Your task to perform on an android device: move an email to a new category in the gmail app Image 0: 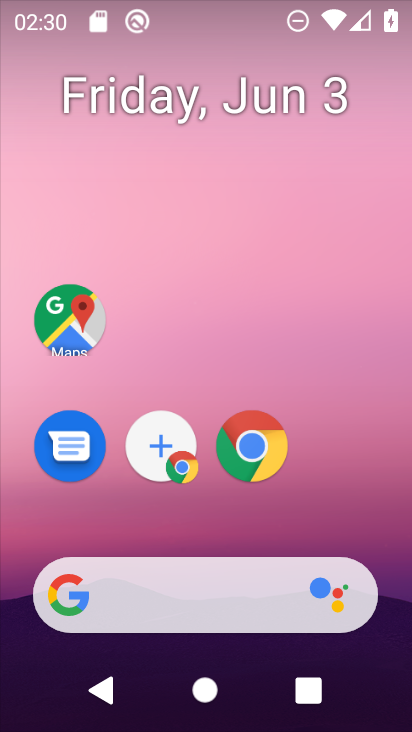
Step 0: drag from (223, 692) to (326, 42)
Your task to perform on an android device: move an email to a new category in the gmail app Image 1: 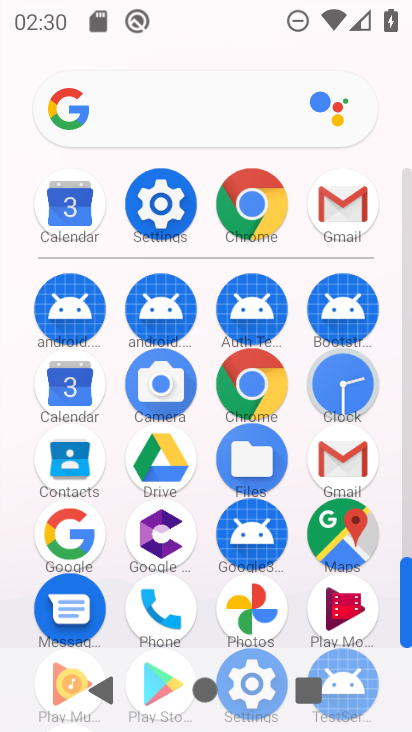
Step 1: click (341, 231)
Your task to perform on an android device: move an email to a new category in the gmail app Image 2: 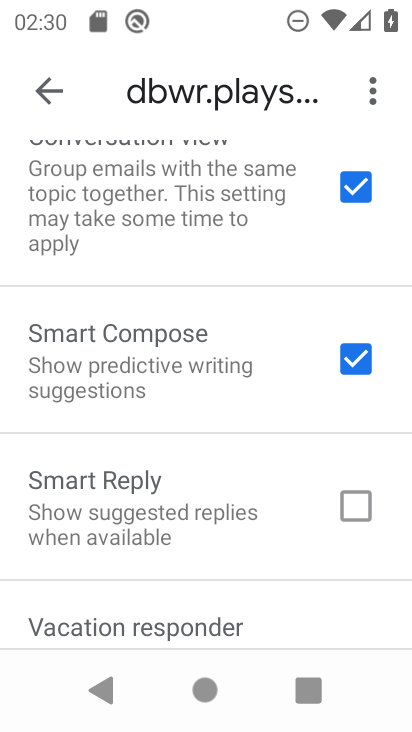
Step 2: click (46, 88)
Your task to perform on an android device: move an email to a new category in the gmail app Image 3: 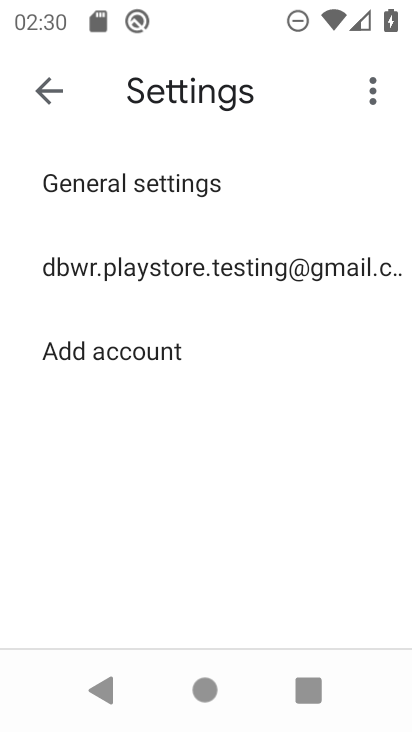
Step 3: click (64, 93)
Your task to perform on an android device: move an email to a new category in the gmail app Image 4: 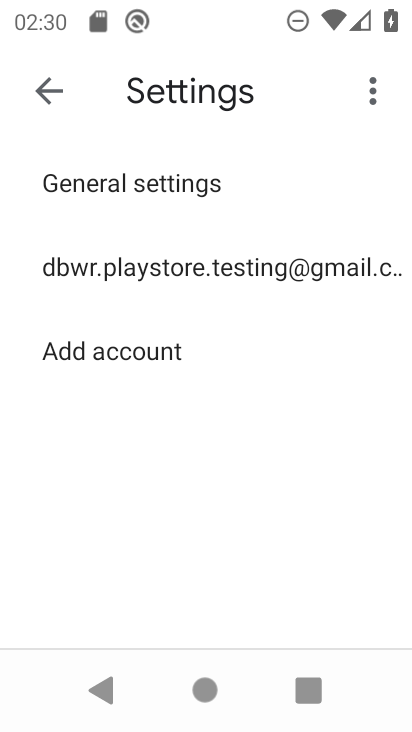
Step 4: click (64, 93)
Your task to perform on an android device: move an email to a new category in the gmail app Image 5: 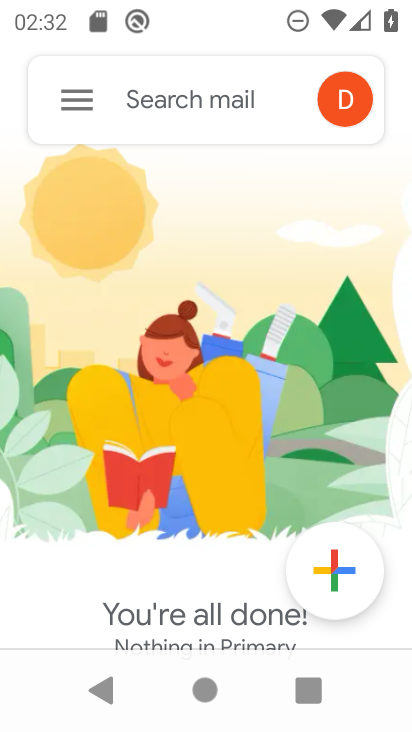
Step 5: task complete